Your task to perform on an android device: open a new tab in the chrome app Image 0: 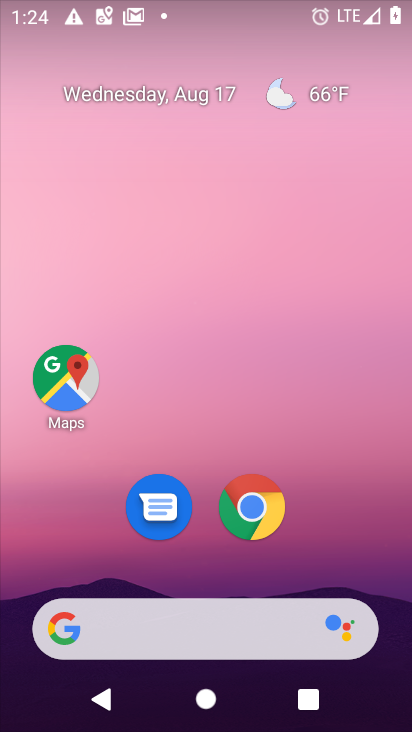
Step 0: click (266, 500)
Your task to perform on an android device: open a new tab in the chrome app Image 1: 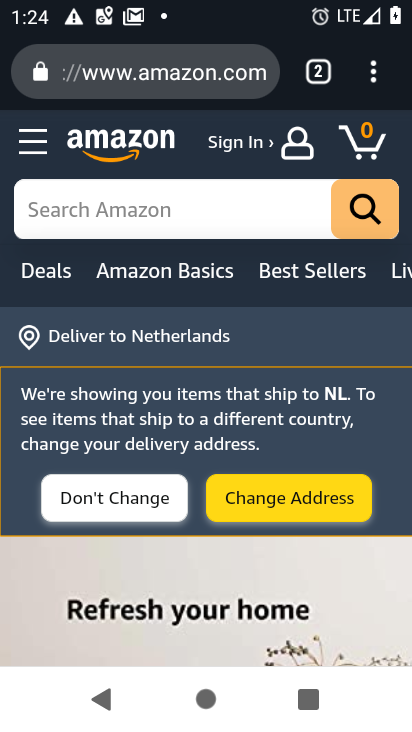
Step 1: click (315, 57)
Your task to perform on an android device: open a new tab in the chrome app Image 2: 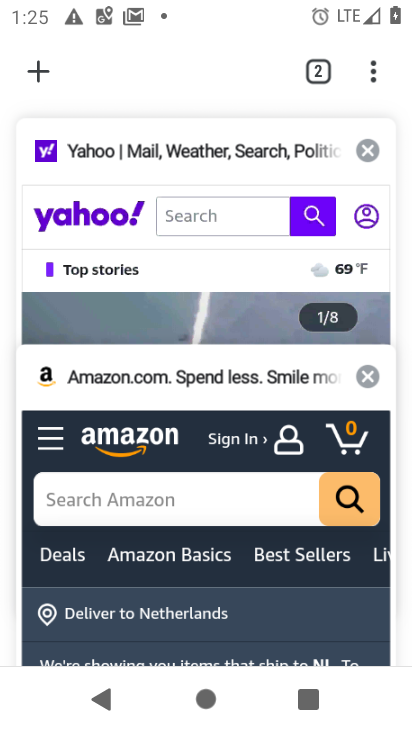
Step 2: click (29, 73)
Your task to perform on an android device: open a new tab in the chrome app Image 3: 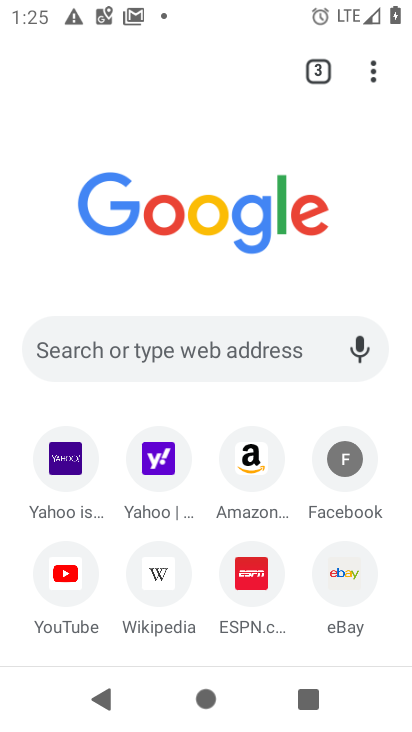
Step 3: task complete